Your task to perform on an android device: Show me popular videos on Youtube Image 0: 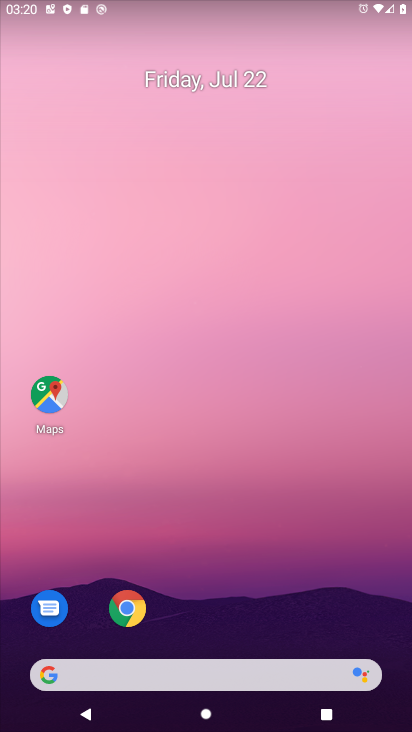
Step 0: drag from (290, 619) to (354, 149)
Your task to perform on an android device: Show me popular videos on Youtube Image 1: 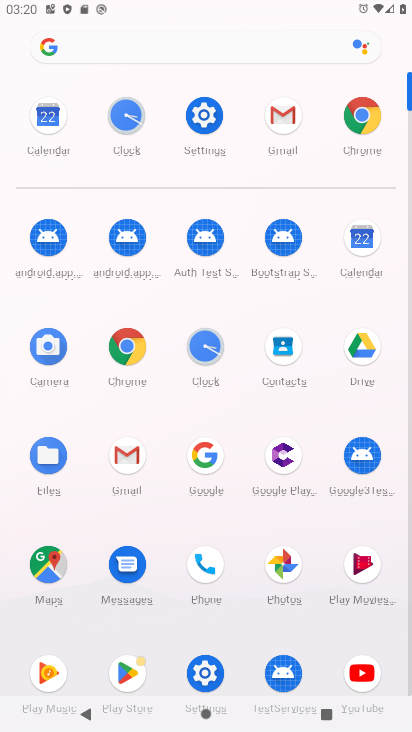
Step 1: click (362, 664)
Your task to perform on an android device: Show me popular videos on Youtube Image 2: 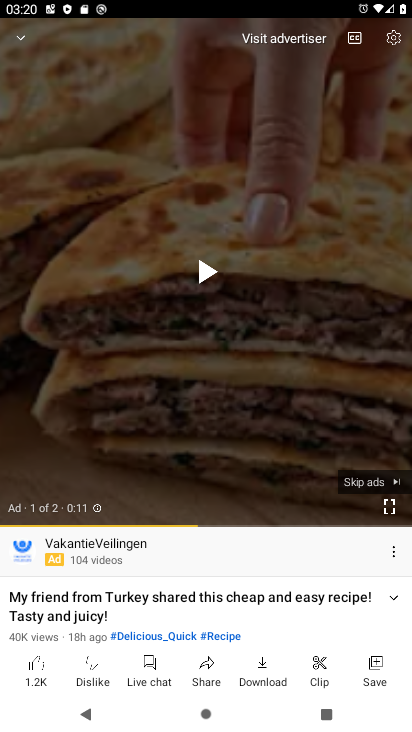
Step 2: drag from (133, 228) to (315, 708)
Your task to perform on an android device: Show me popular videos on Youtube Image 3: 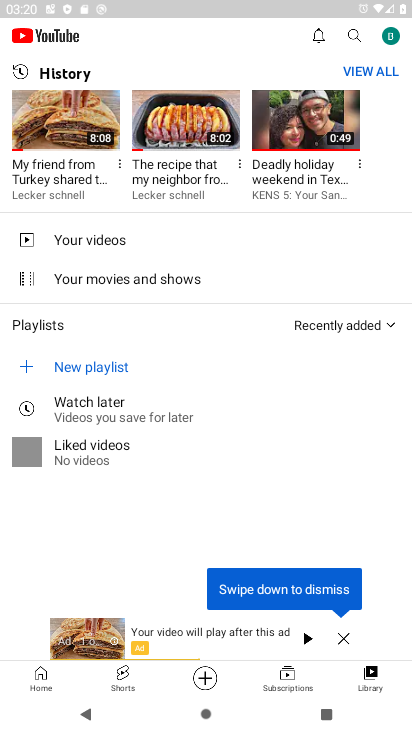
Step 3: click (346, 635)
Your task to perform on an android device: Show me popular videos on Youtube Image 4: 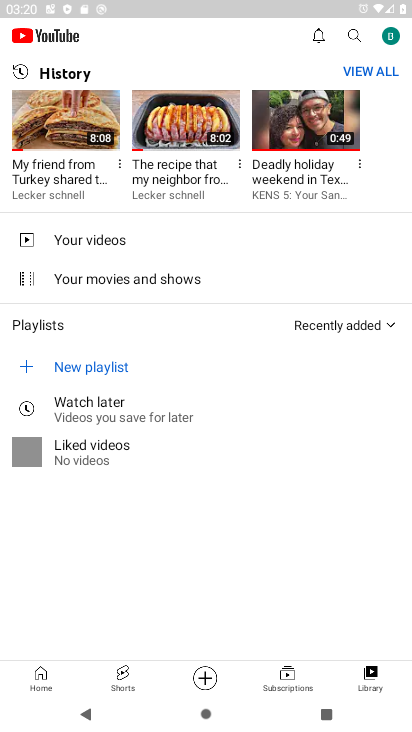
Step 4: click (44, 683)
Your task to perform on an android device: Show me popular videos on Youtube Image 5: 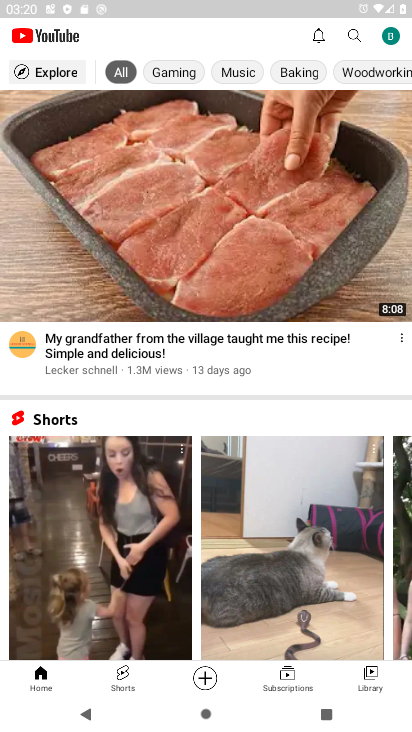
Step 5: click (53, 67)
Your task to perform on an android device: Show me popular videos on Youtube Image 6: 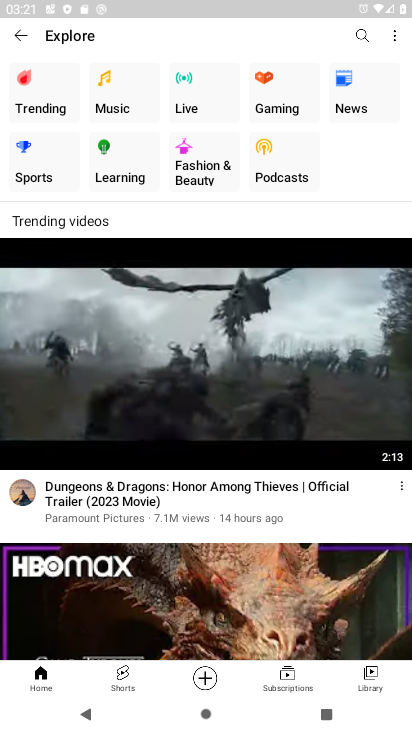
Step 6: click (51, 82)
Your task to perform on an android device: Show me popular videos on Youtube Image 7: 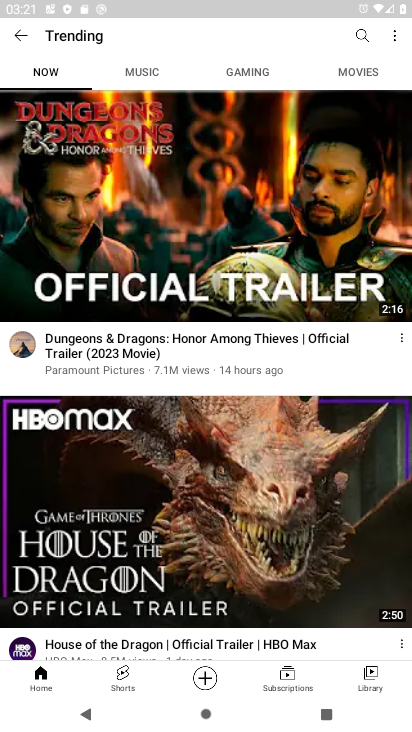
Step 7: task complete